Your task to perform on an android device: open app "Google Translate" Image 0: 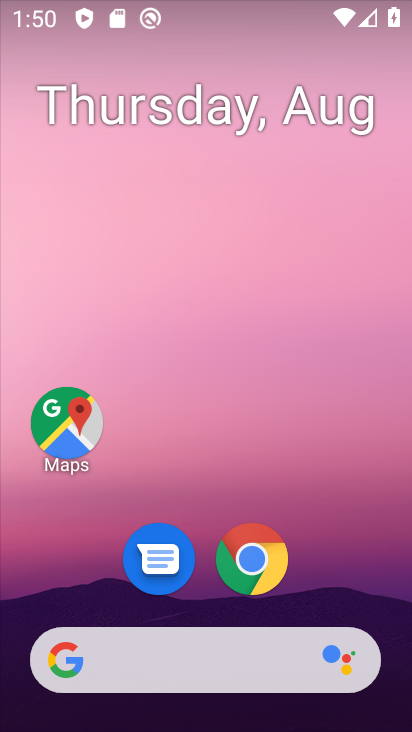
Step 0: drag from (223, 470) to (257, 2)
Your task to perform on an android device: open app "Google Translate" Image 1: 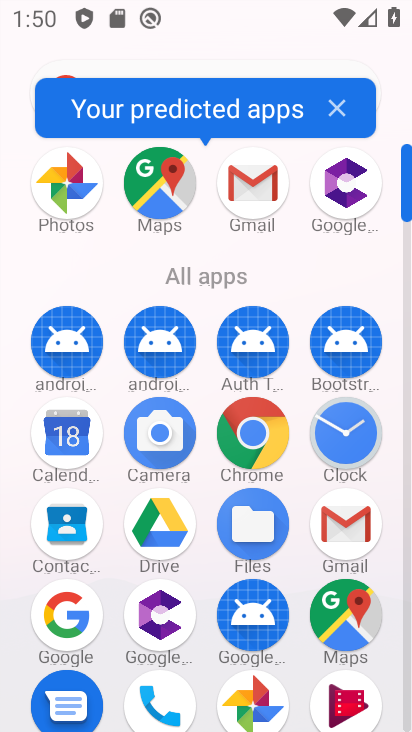
Step 1: drag from (197, 461) to (287, 41)
Your task to perform on an android device: open app "Google Translate" Image 2: 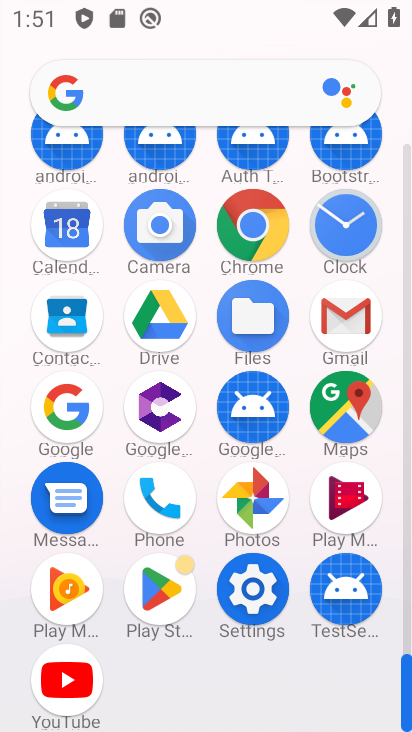
Step 2: click (147, 600)
Your task to perform on an android device: open app "Google Translate" Image 3: 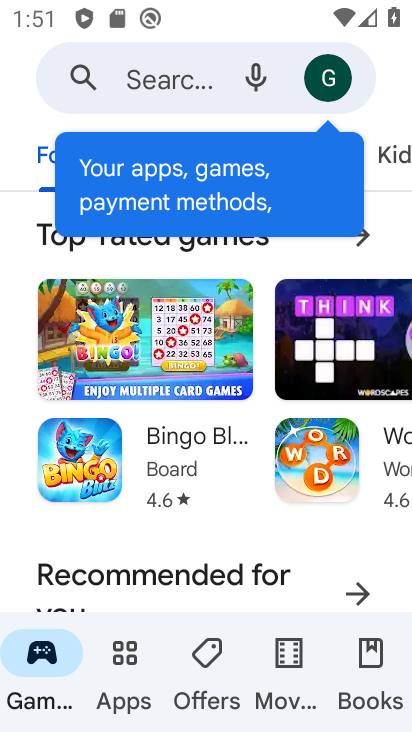
Step 3: click (168, 74)
Your task to perform on an android device: open app "Google Translate" Image 4: 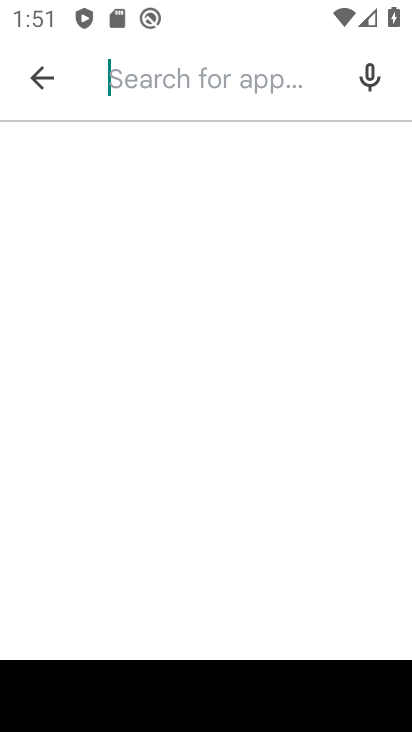
Step 4: type "google translate"
Your task to perform on an android device: open app "Google Translate" Image 5: 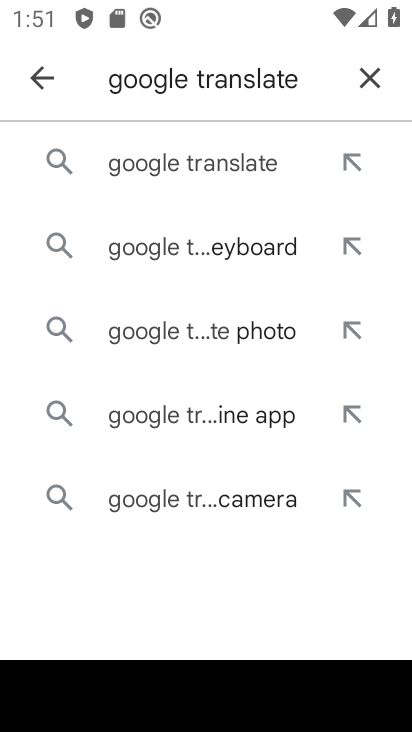
Step 5: click (199, 158)
Your task to perform on an android device: open app "Google Translate" Image 6: 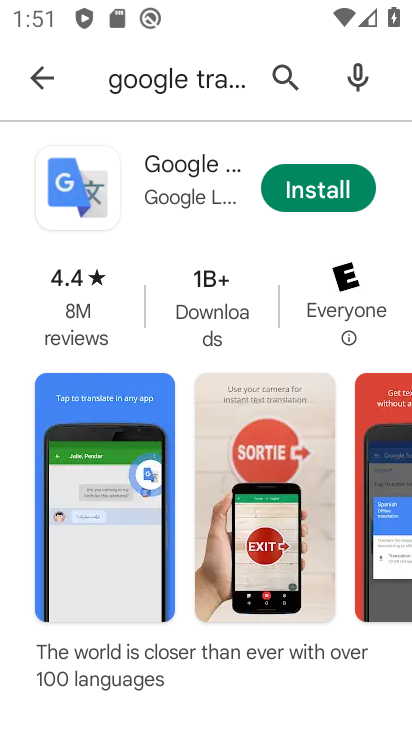
Step 6: task complete